Your task to perform on an android device: Go to Yahoo.com Image 0: 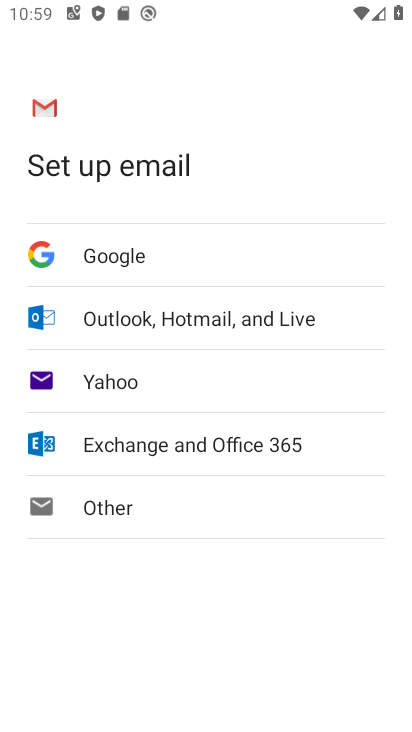
Step 0: press home button
Your task to perform on an android device: Go to Yahoo.com Image 1: 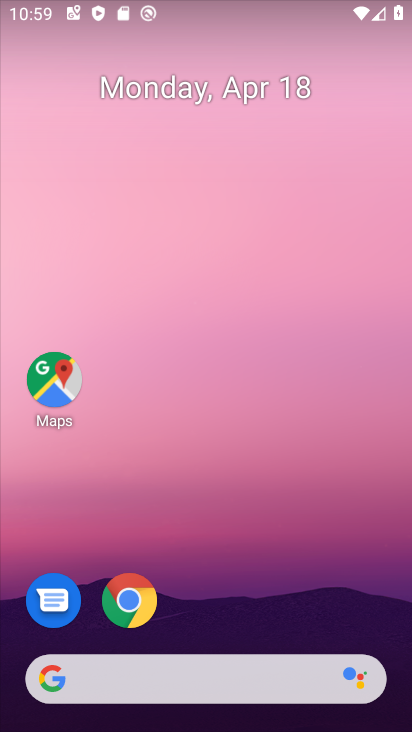
Step 1: drag from (252, 627) to (275, 208)
Your task to perform on an android device: Go to Yahoo.com Image 2: 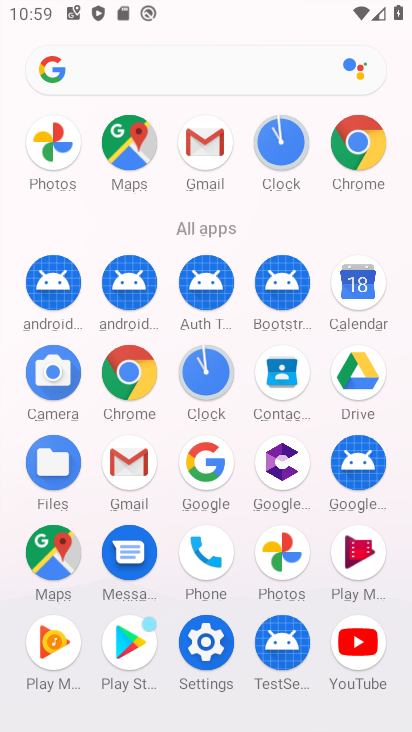
Step 2: click (134, 382)
Your task to perform on an android device: Go to Yahoo.com Image 3: 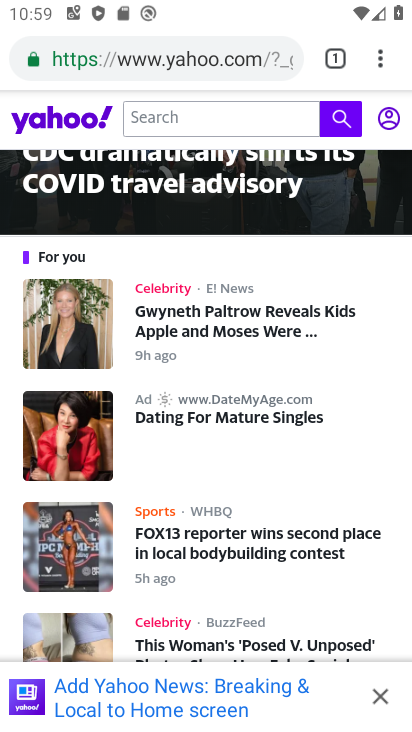
Step 3: task complete